Your task to perform on an android device: create a new album in the google photos Image 0: 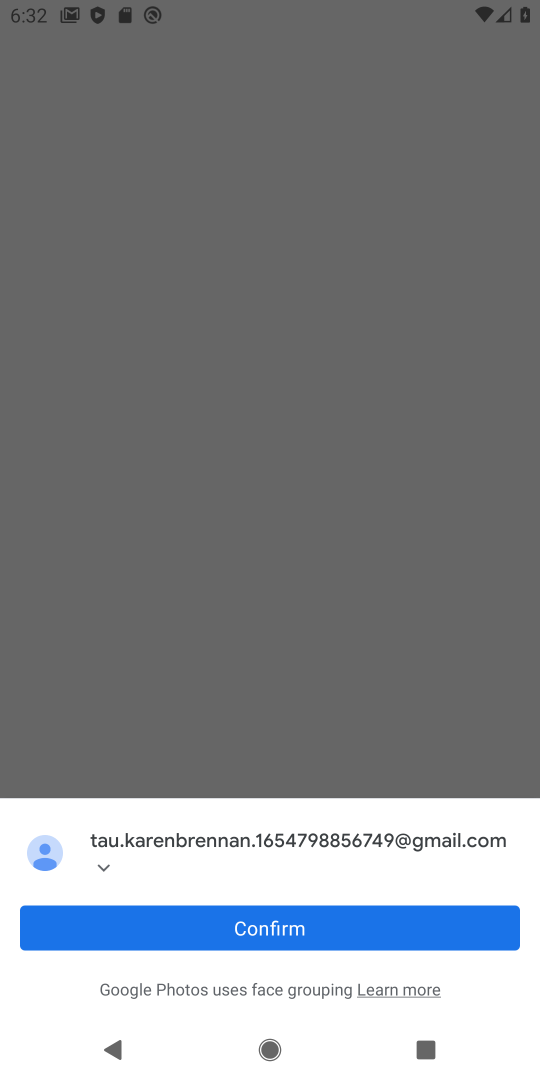
Step 0: press home button
Your task to perform on an android device: create a new album in the google photos Image 1: 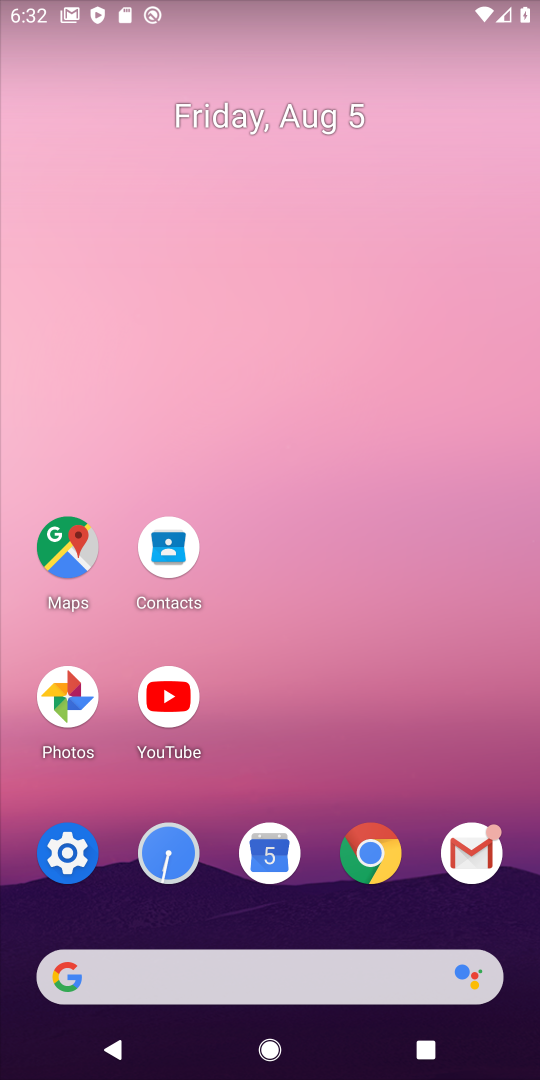
Step 1: click (67, 698)
Your task to perform on an android device: create a new album in the google photos Image 2: 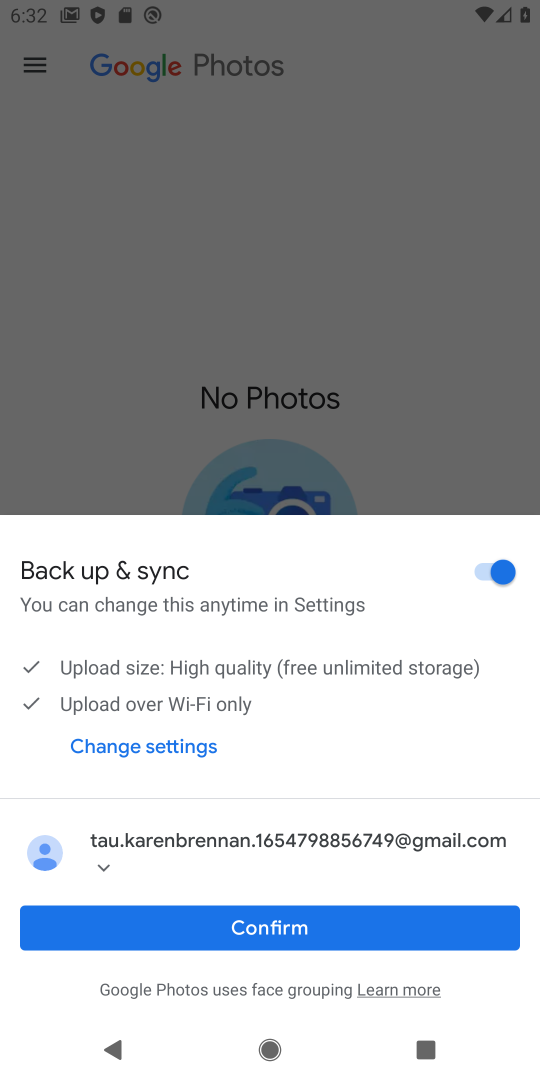
Step 2: click (235, 925)
Your task to perform on an android device: create a new album in the google photos Image 3: 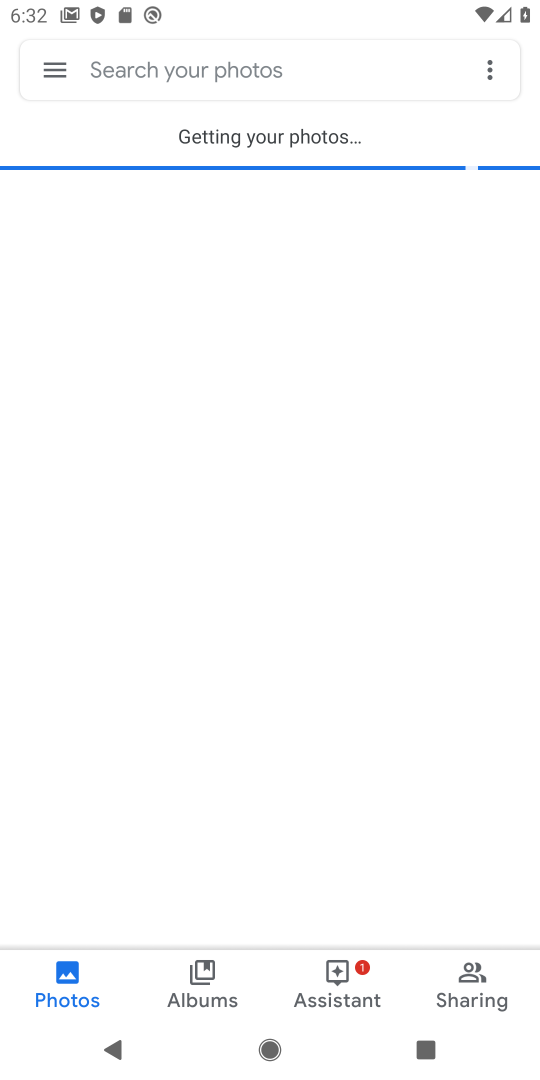
Step 3: click (207, 982)
Your task to perform on an android device: create a new album in the google photos Image 4: 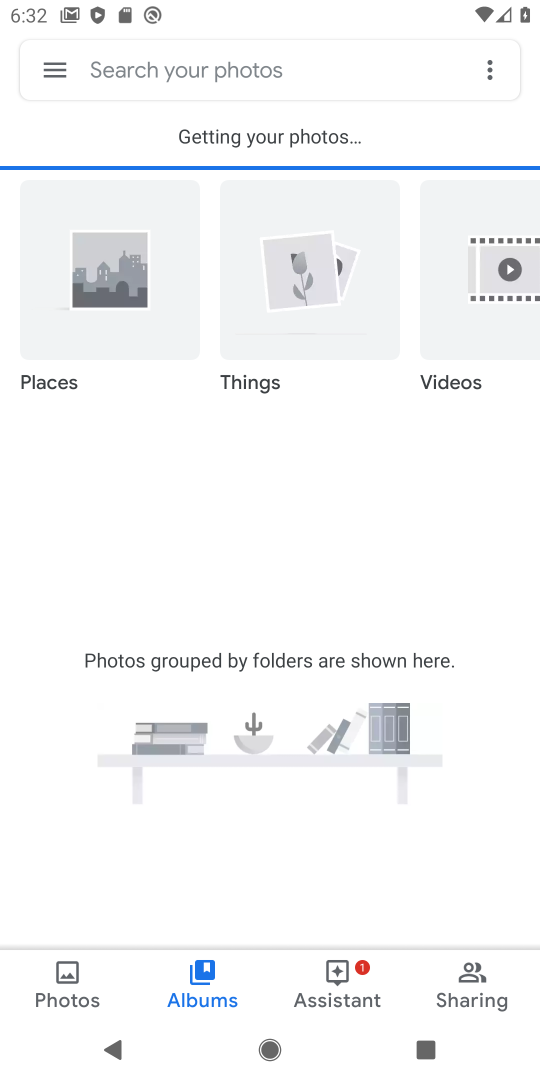
Step 4: click (497, 56)
Your task to perform on an android device: create a new album in the google photos Image 5: 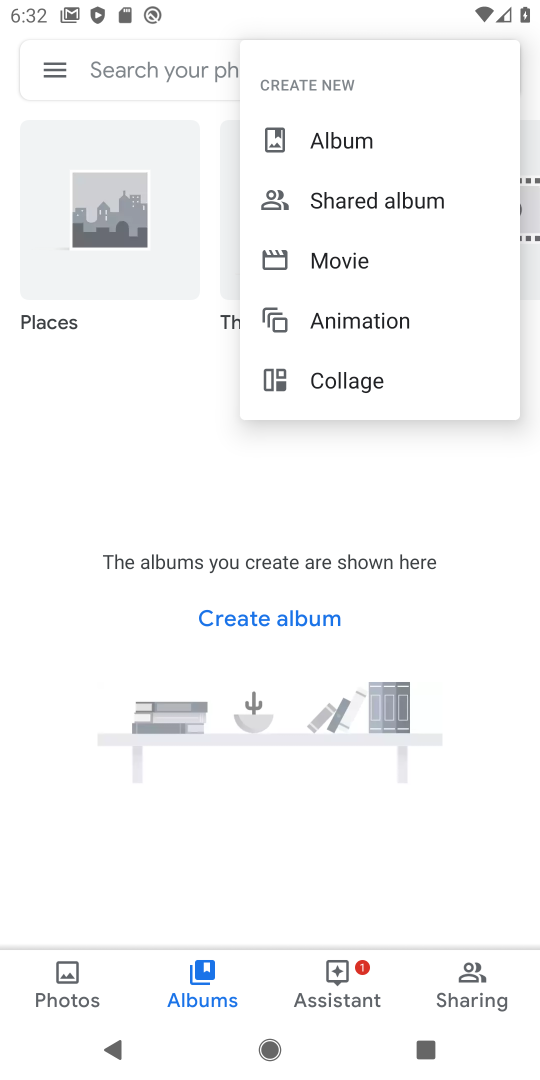
Step 5: click (349, 136)
Your task to perform on an android device: create a new album in the google photos Image 6: 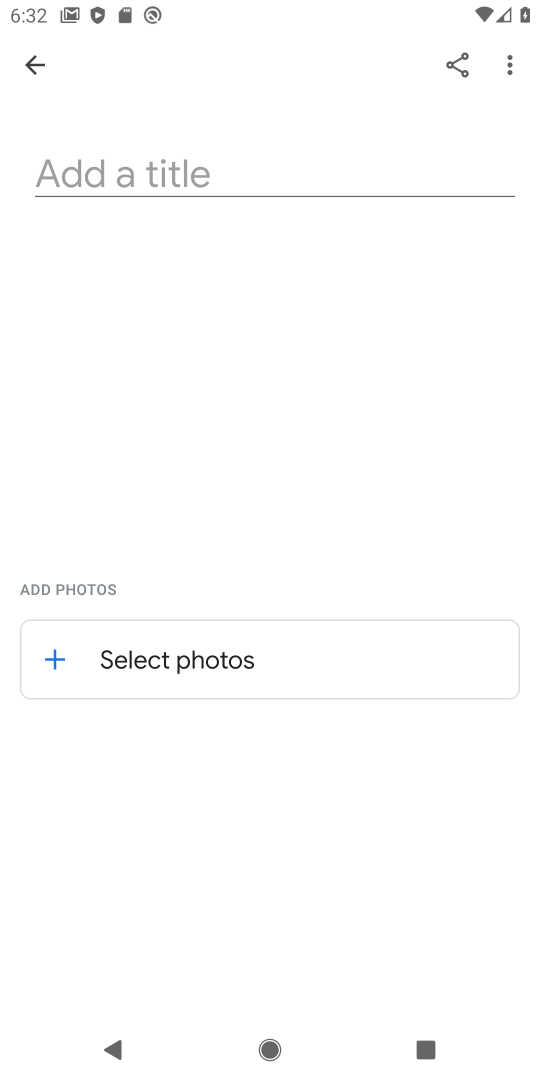
Step 6: click (190, 175)
Your task to perform on an android device: create a new album in the google photos Image 7: 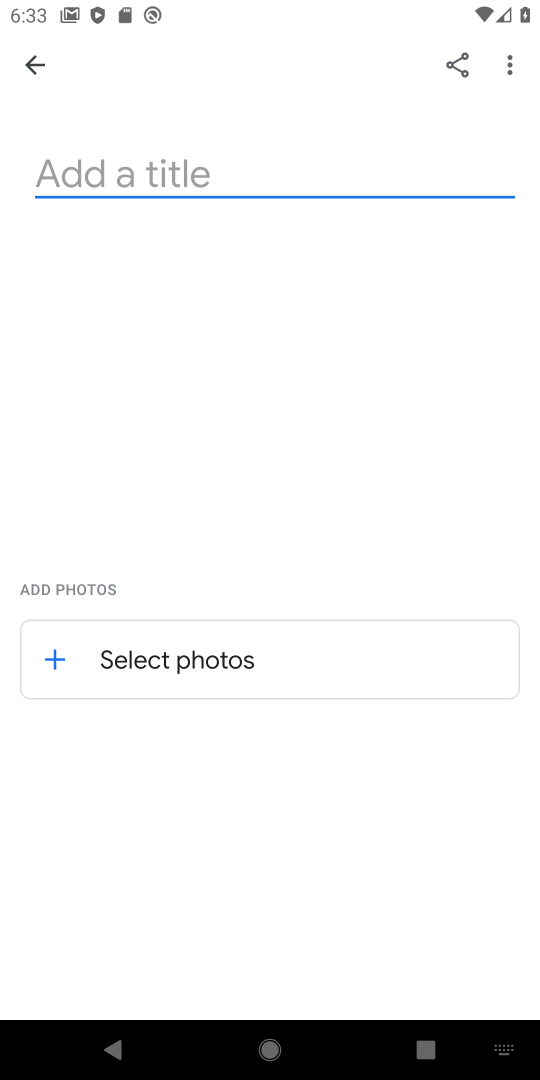
Step 7: type "mm"
Your task to perform on an android device: create a new album in the google photos Image 8: 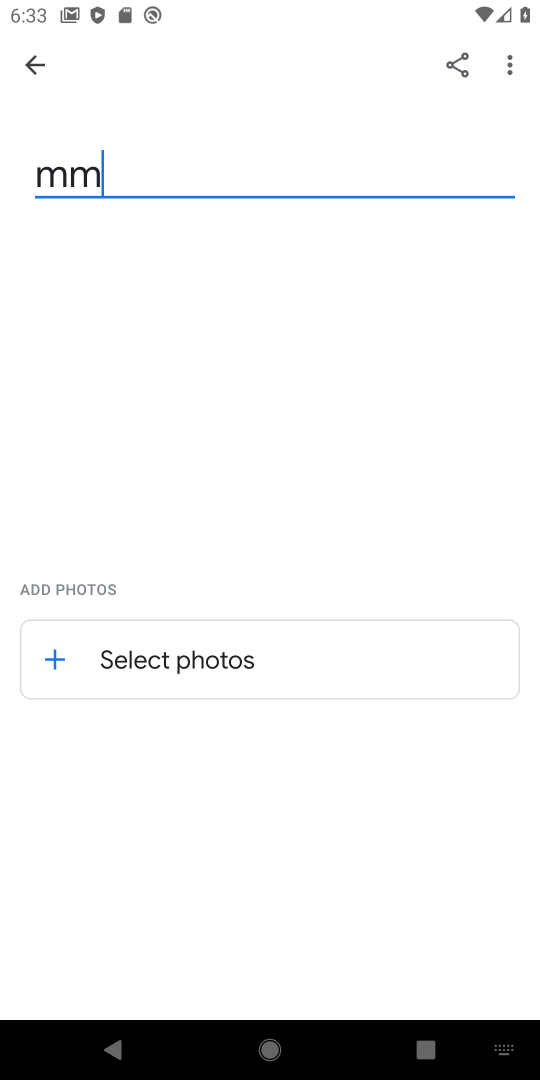
Step 8: click (462, 57)
Your task to perform on an android device: create a new album in the google photos Image 9: 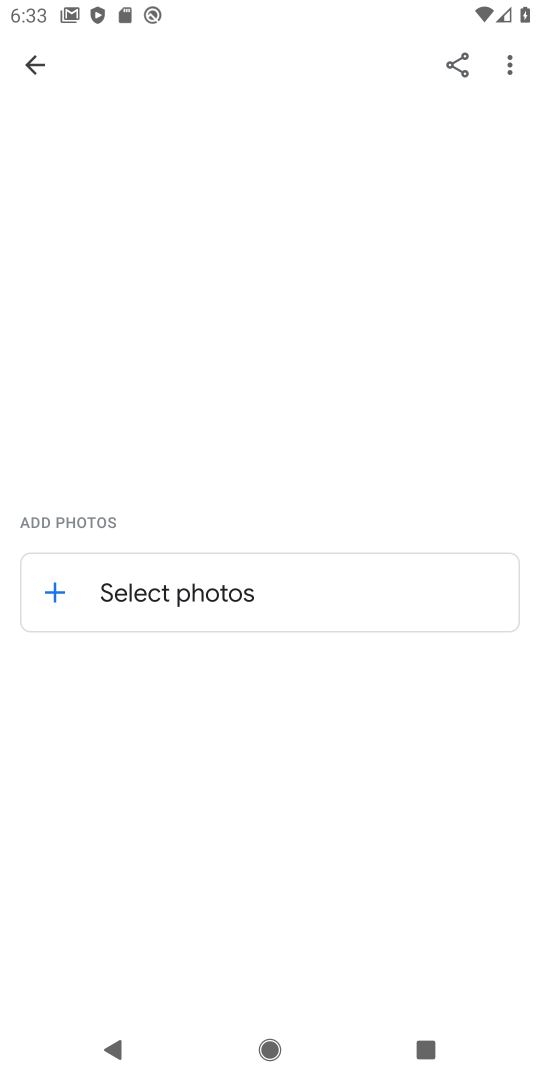
Step 9: task complete